Your task to perform on an android device: Show me recent news Image 0: 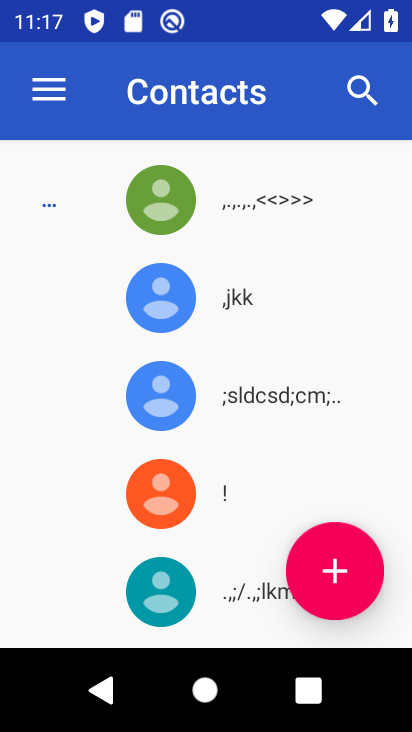
Step 0: press home button
Your task to perform on an android device: Show me recent news Image 1: 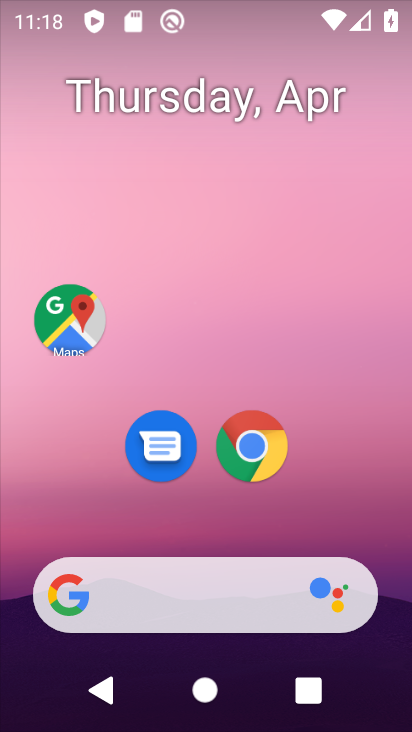
Step 1: drag from (375, 503) to (348, 100)
Your task to perform on an android device: Show me recent news Image 2: 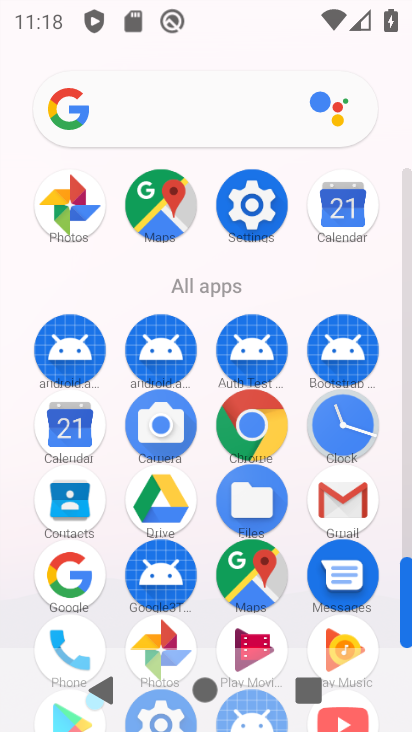
Step 2: click (264, 431)
Your task to perform on an android device: Show me recent news Image 3: 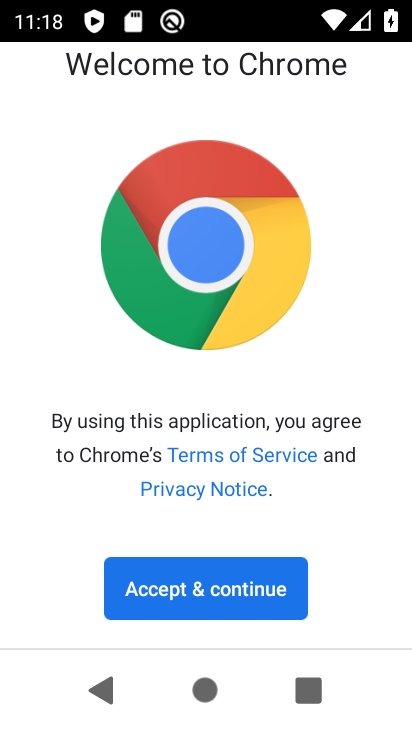
Step 3: click (249, 581)
Your task to perform on an android device: Show me recent news Image 4: 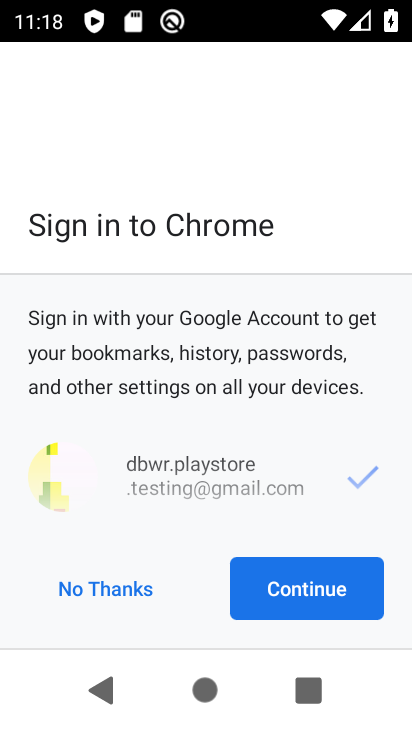
Step 4: click (299, 589)
Your task to perform on an android device: Show me recent news Image 5: 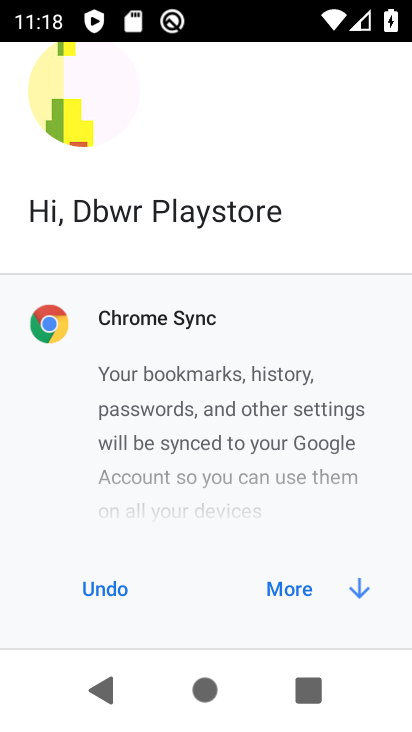
Step 5: click (299, 589)
Your task to perform on an android device: Show me recent news Image 6: 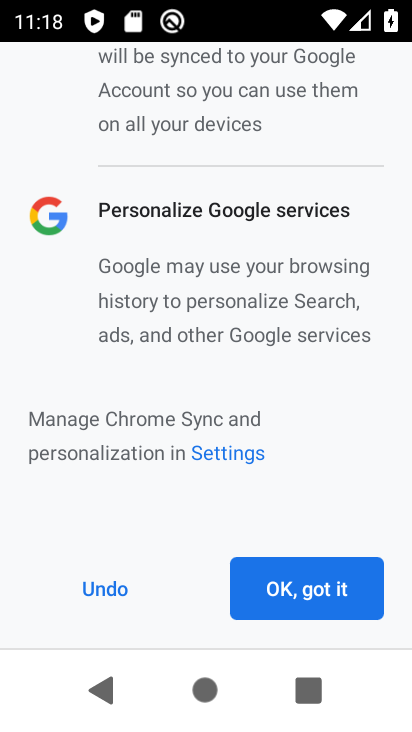
Step 6: click (299, 589)
Your task to perform on an android device: Show me recent news Image 7: 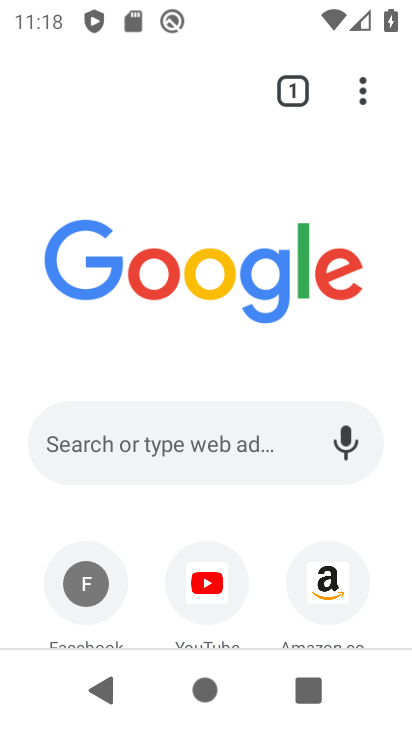
Step 7: click (259, 473)
Your task to perform on an android device: Show me recent news Image 8: 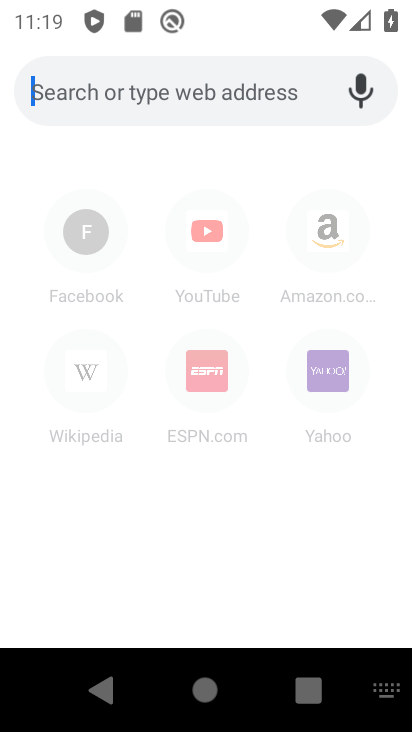
Step 8: type "recent news"
Your task to perform on an android device: Show me recent news Image 9: 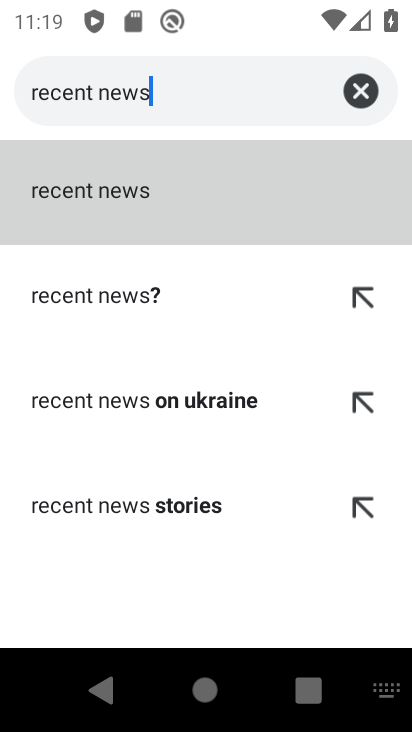
Step 9: click (118, 178)
Your task to perform on an android device: Show me recent news Image 10: 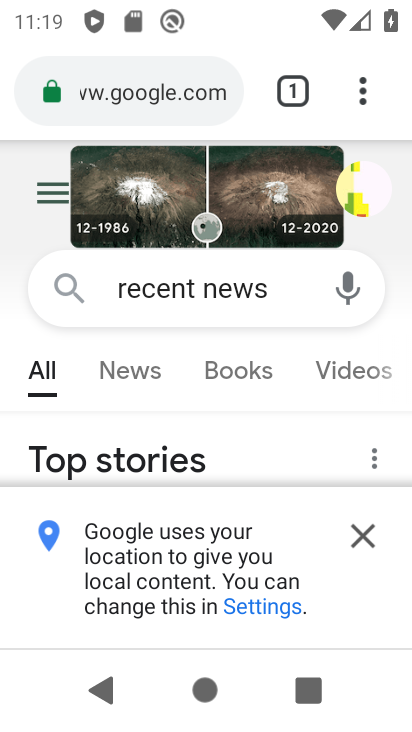
Step 10: click (353, 536)
Your task to perform on an android device: Show me recent news Image 11: 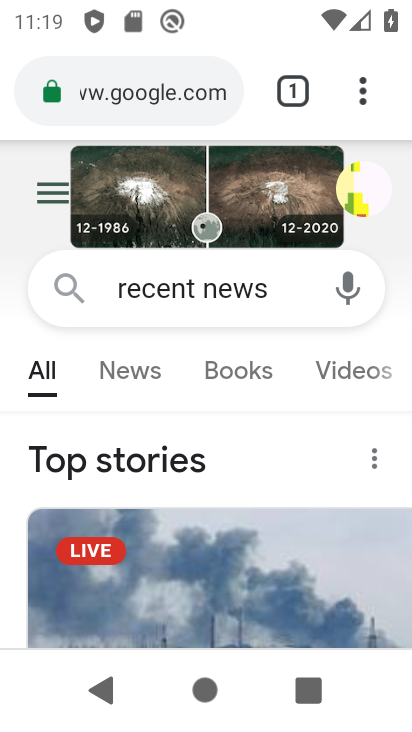
Step 11: task complete